Your task to perform on an android device: Open Google Chrome and open the bookmarks view Image 0: 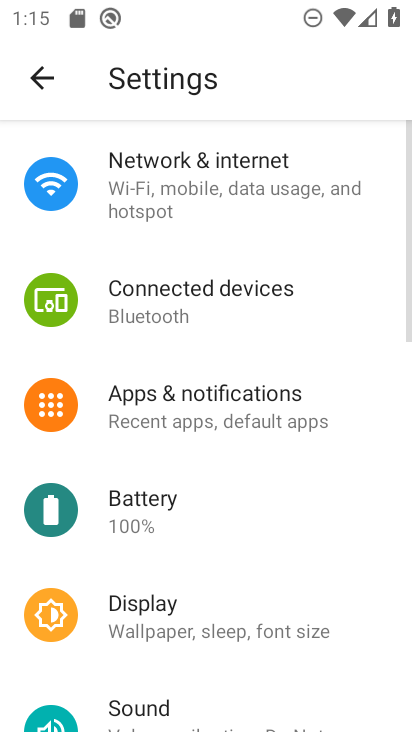
Step 0: press home button
Your task to perform on an android device: Open Google Chrome and open the bookmarks view Image 1: 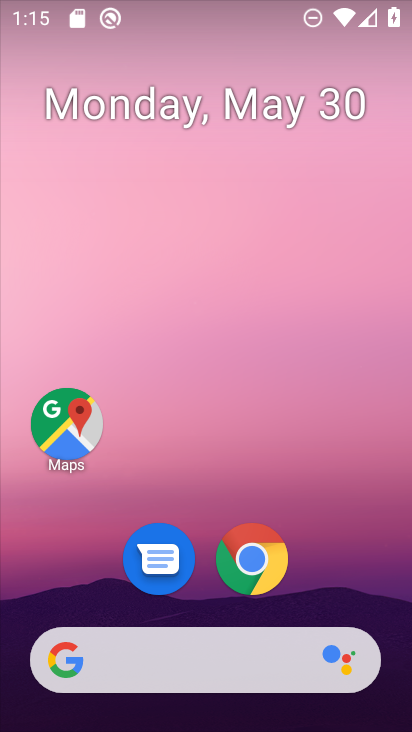
Step 1: click (258, 560)
Your task to perform on an android device: Open Google Chrome and open the bookmarks view Image 2: 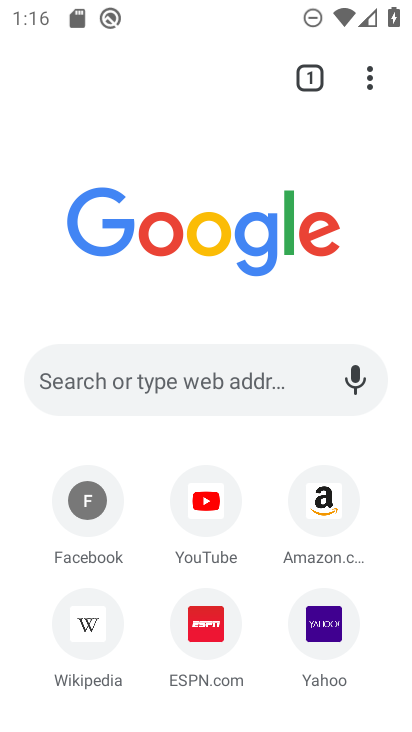
Step 2: click (365, 85)
Your task to perform on an android device: Open Google Chrome and open the bookmarks view Image 3: 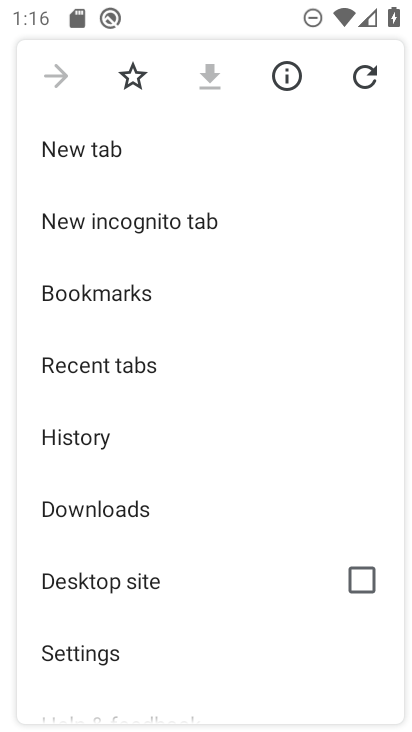
Step 3: click (127, 279)
Your task to perform on an android device: Open Google Chrome and open the bookmarks view Image 4: 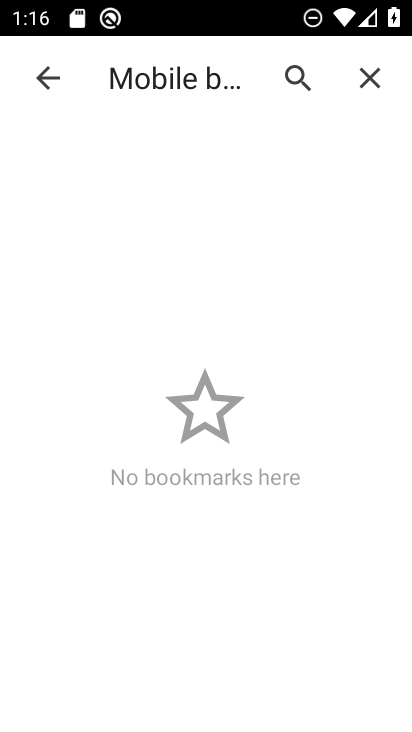
Step 4: task complete